Your task to perform on an android device: Turn on the flashlight Image 0: 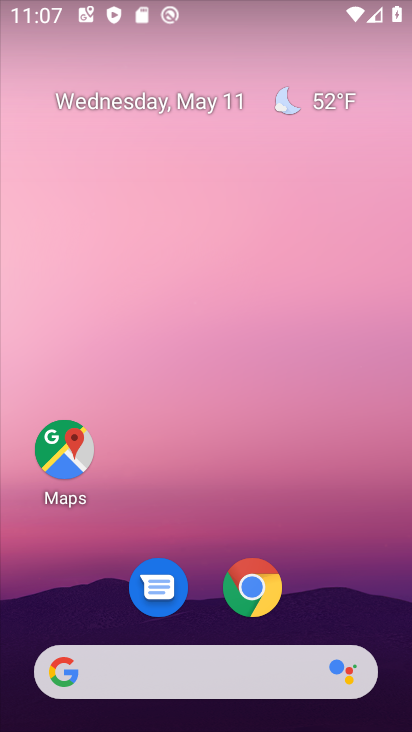
Step 0: drag from (233, 697) to (247, 186)
Your task to perform on an android device: Turn on the flashlight Image 1: 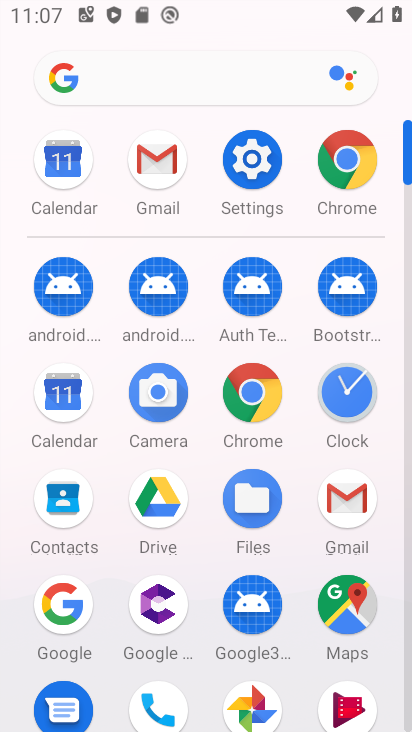
Step 1: click (236, 180)
Your task to perform on an android device: Turn on the flashlight Image 2: 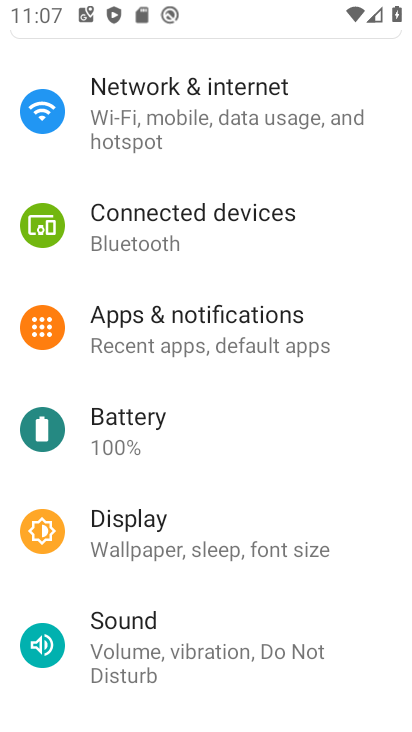
Step 2: drag from (196, 170) to (205, 413)
Your task to perform on an android device: Turn on the flashlight Image 3: 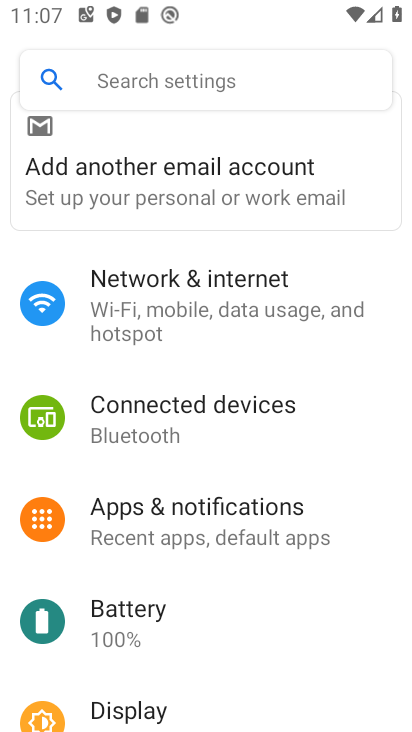
Step 3: click (146, 86)
Your task to perform on an android device: Turn on the flashlight Image 4: 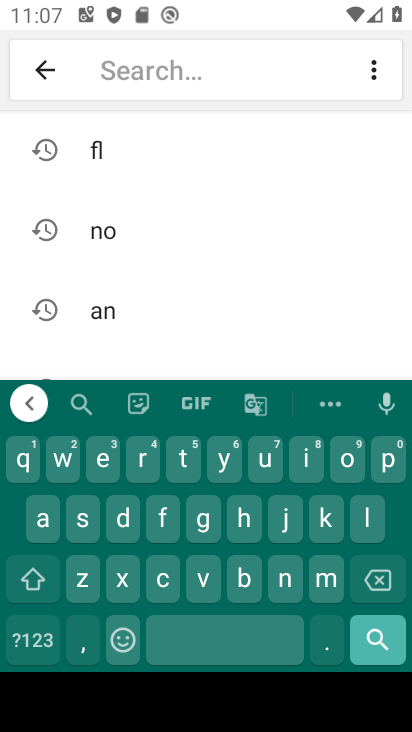
Step 4: click (154, 152)
Your task to perform on an android device: Turn on the flashlight Image 5: 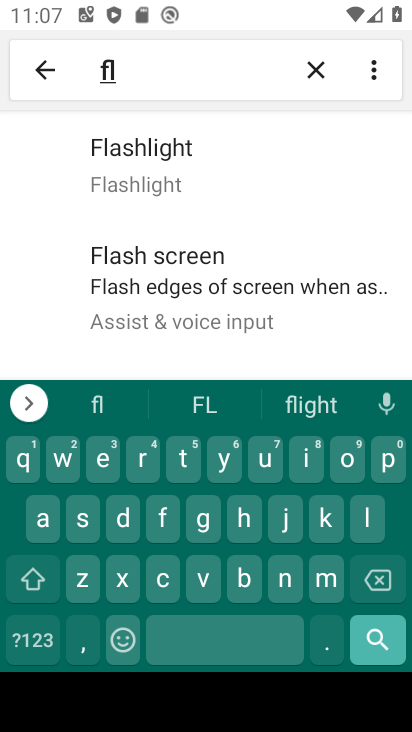
Step 5: click (157, 155)
Your task to perform on an android device: Turn on the flashlight Image 6: 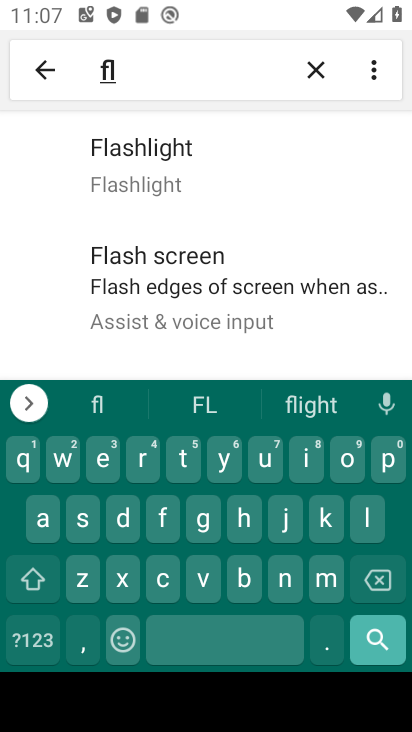
Step 6: click (161, 164)
Your task to perform on an android device: Turn on the flashlight Image 7: 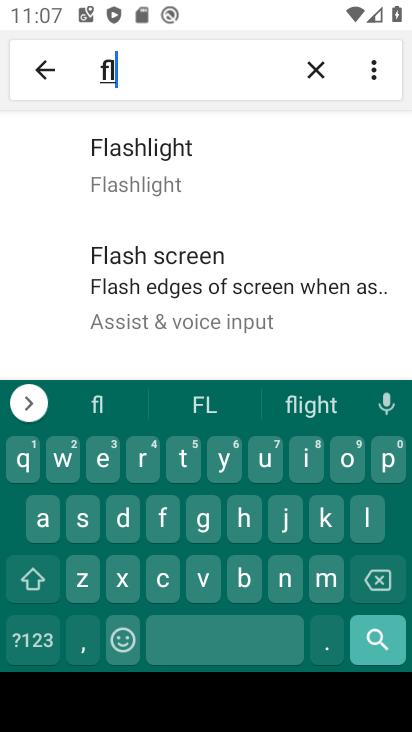
Step 7: task complete